Your task to perform on an android device: Open Android settings Image 0: 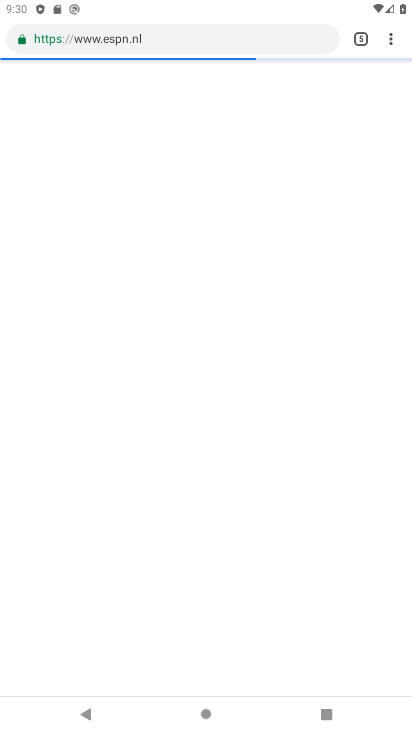
Step 0: press home button
Your task to perform on an android device: Open Android settings Image 1: 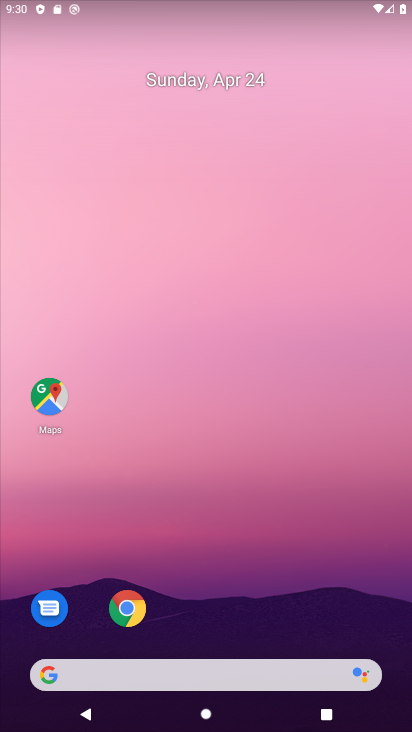
Step 1: drag from (254, 664) to (185, 254)
Your task to perform on an android device: Open Android settings Image 2: 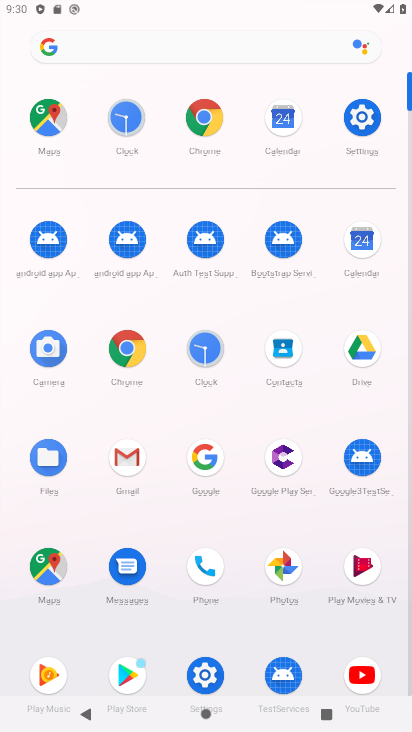
Step 2: click (353, 134)
Your task to perform on an android device: Open Android settings Image 3: 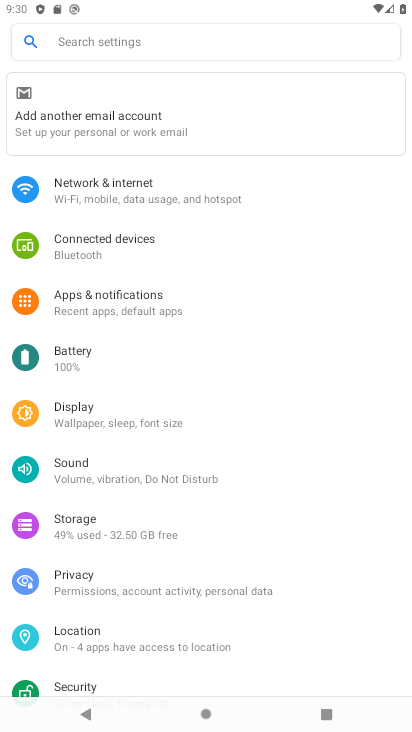
Step 3: click (166, 37)
Your task to perform on an android device: Open Android settings Image 4: 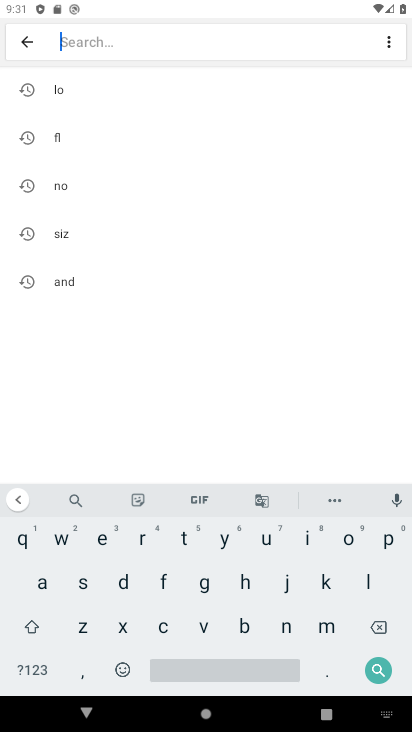
Step 4: click (44, 578)
Your task to perform on an android device: Open Android settings Image 5: 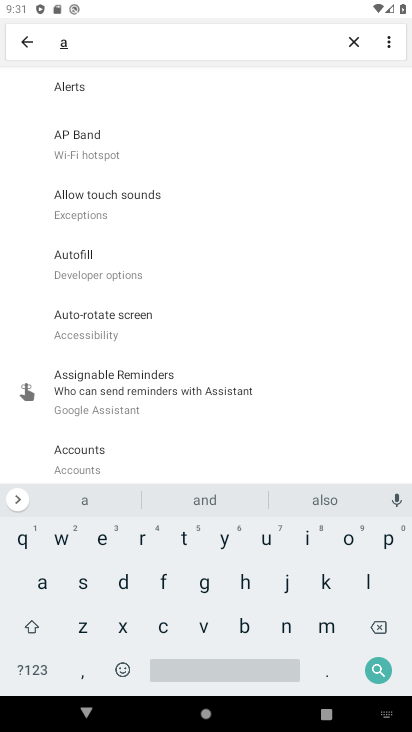
Step 5: click (285, 623)
Your task to perform on an android device: Open Android settings Image 6: 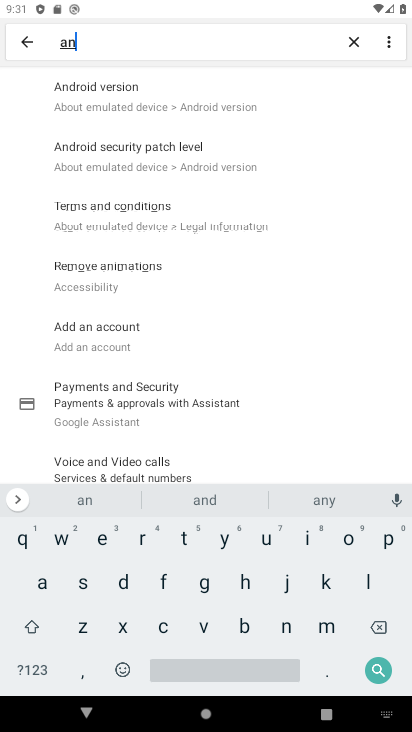
Step 6: click (202, 98)
Your task to perform on an android device: Open Android settings Image 7: 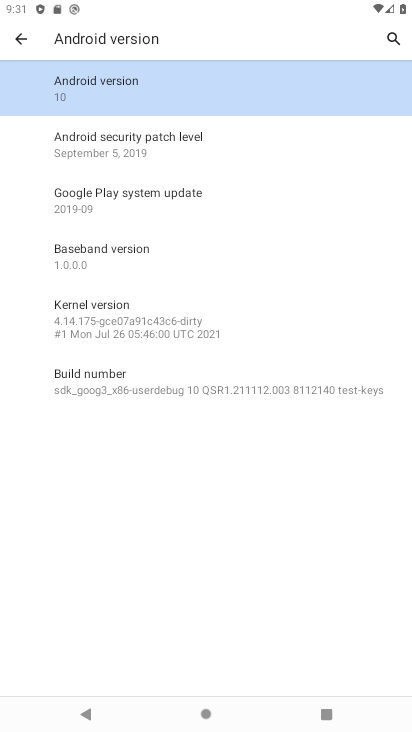
Step 7: click (166, 89)
Your task to perform on an android device: Open Android settings Image 8: 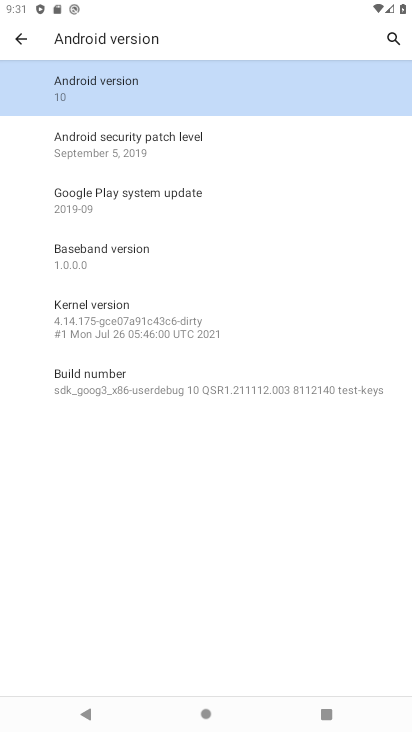
Step 8: task complete